Your task to perform on an android device: Search for Mexican restaurants on Maps Image 0: 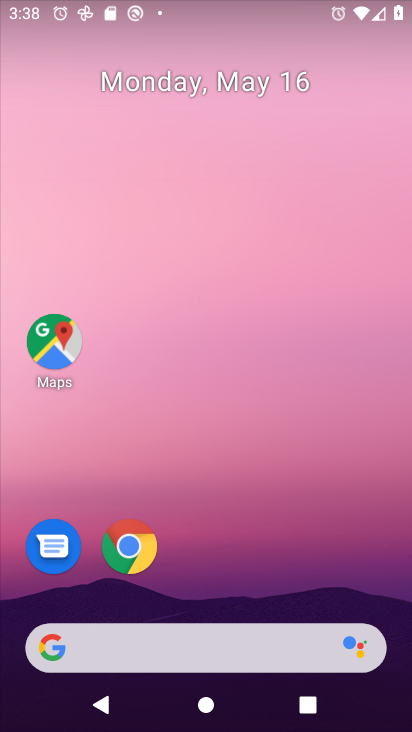
Step 0: drag from (369, 585) to (374, 152)
Your task to perform on an android device: Search for Mexican restaurants on Maps Image 1: 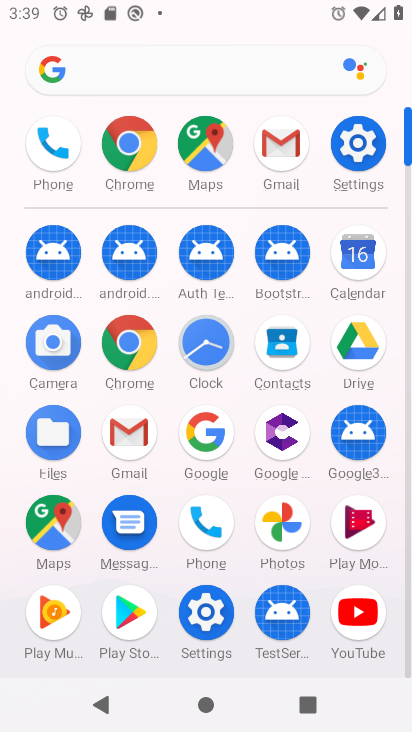
Step 1: click (58, 536)
Your task to perform on an android device: Search for Mexican restaurants on Maps Image 2: 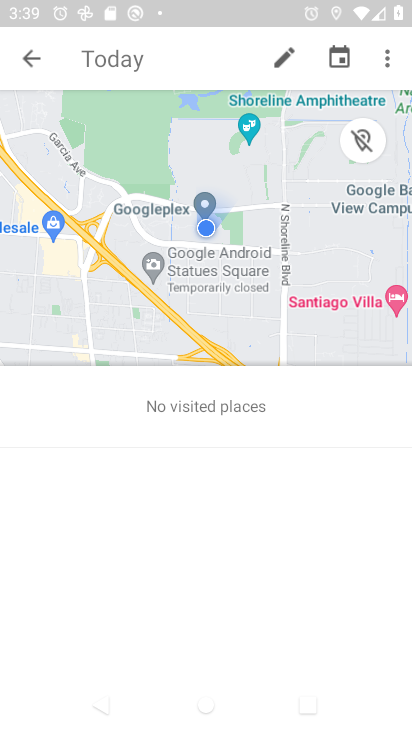
Step 2: click (24, 51)
Your task to perform on an android device: Search for Mexican restaurants on Maps Image 3: 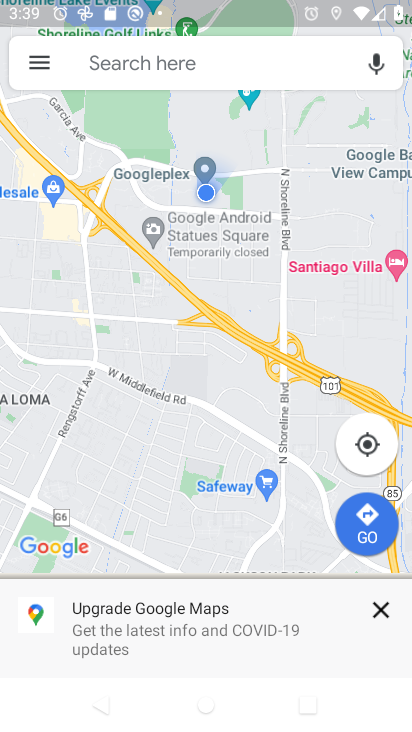
Step 3: click (190, 65)
Your task to perform on an android device: Search for Mexican restaurants on Maps Image 4: 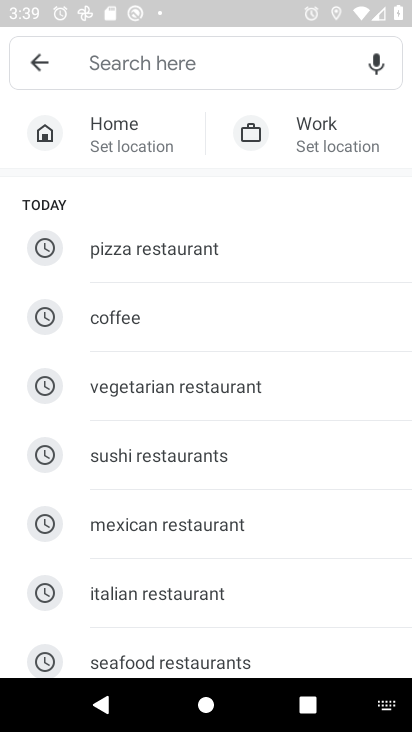
Step 4: type "mexcian restaurants"
Your task to perform on an android device: Search for Mexican restaurants on Maps Image 5: 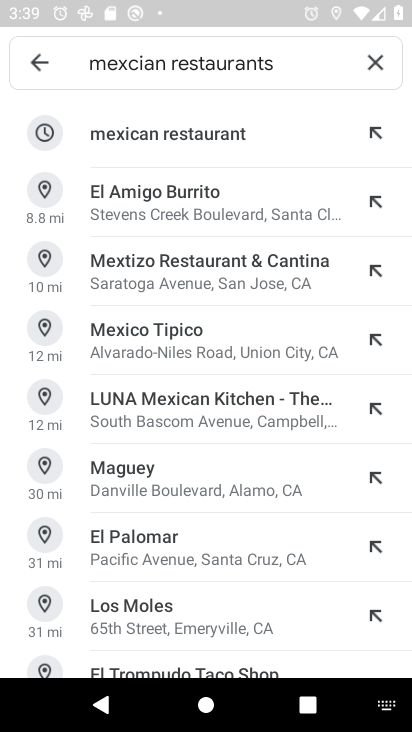
Step 5: click (231, 152)
Your task to perform on an android device: Search for Mexican restaurants on Maps Image 6: 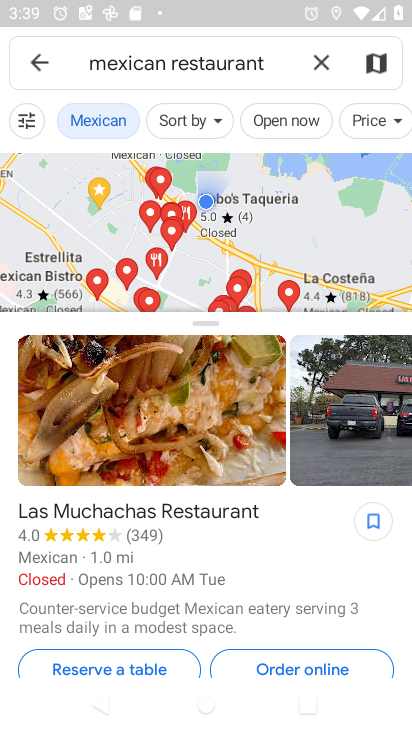
Step 6: task complete